Your task to perform on an android device: Open the phone app and click the voicemail tab. Image 0: 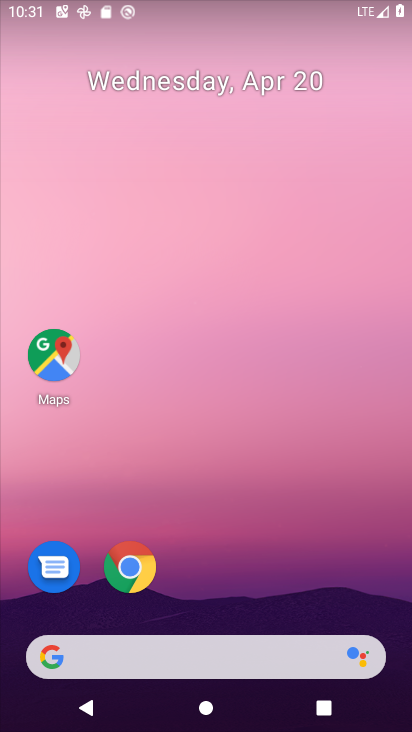
Step 0: drag from (349, 455) to (366, 62)
Your task to perform on an android device: Open the phone app and click the voicemail tab. Image 1: 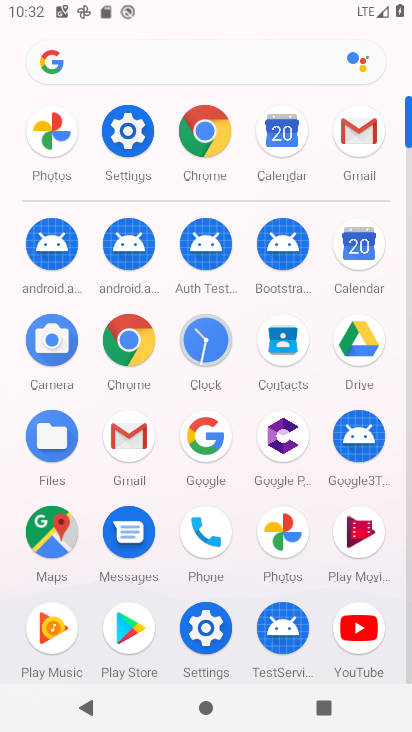
Step 1: click (213, 532)
Your task to perform on an android device: Open the phone app and click the voicemail tab. Image 2: 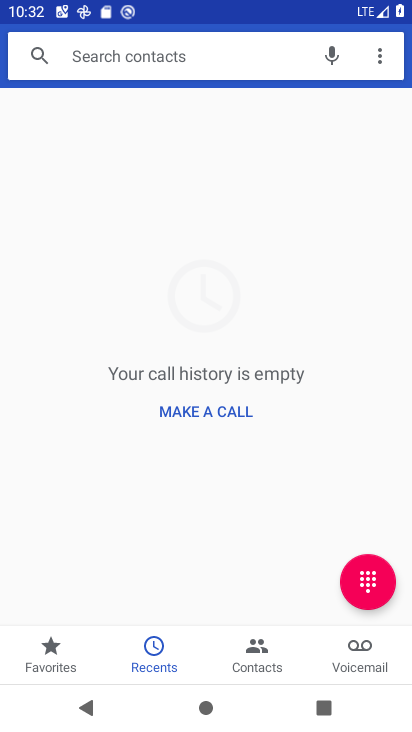
Step 2: click (362, 655)
Your task to perform on an android device: Open the phone app and click the voicemail tab. Image 3: 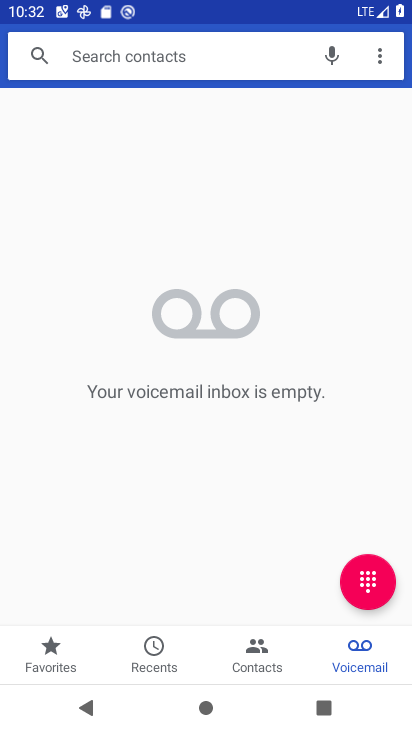
Step 3: task complete